Your task to perform on an android device: turn notification dots on Image 0: 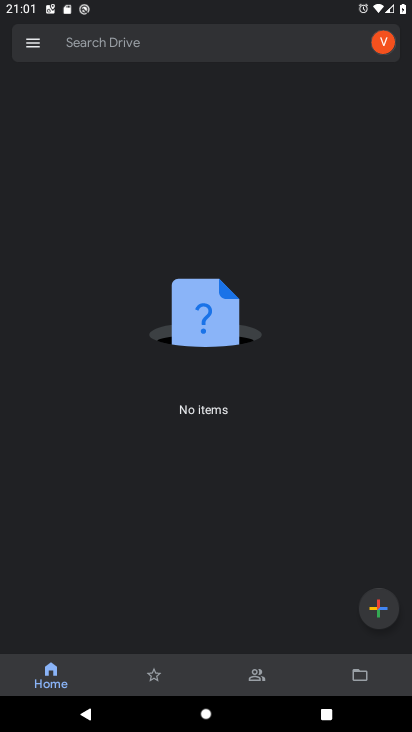
Step 0: press home button
Your task to perform on an android device: turn notification dots on Image 1: 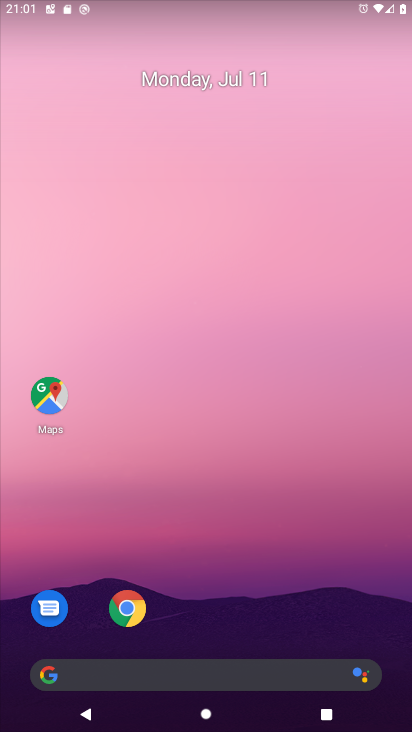
Step 1: drag from (258, 614) to (196, 21)
Your task to perform on an android device: turn notification dots on Image 2: 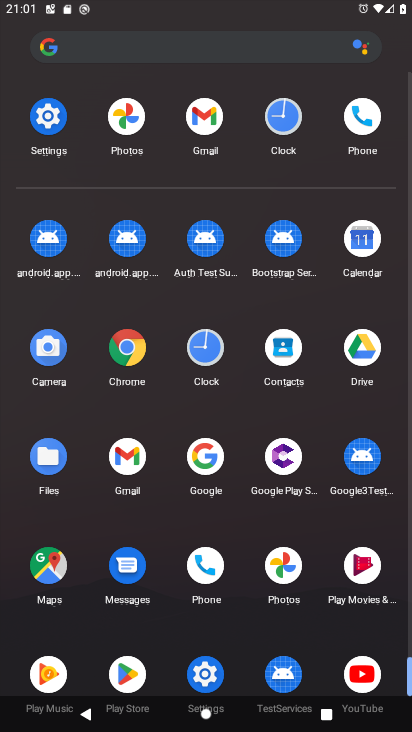
Step 2: click (44, 136)
Your task to perform on an android device: turn notification dots on Image 3: 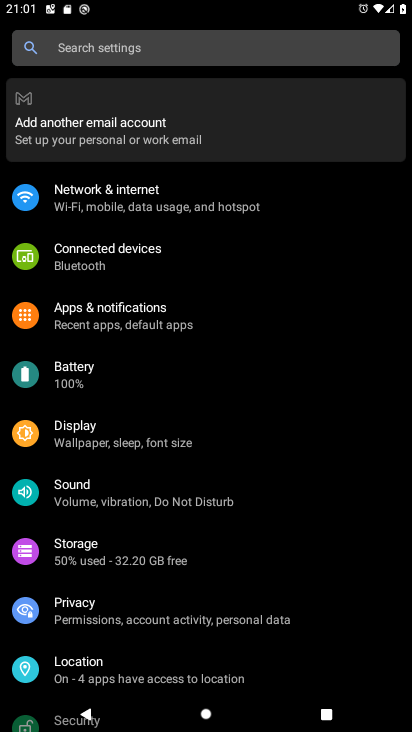
Step 3: click (117, 315)
Your task to perform on an android device: turn notification dots on Image 4: 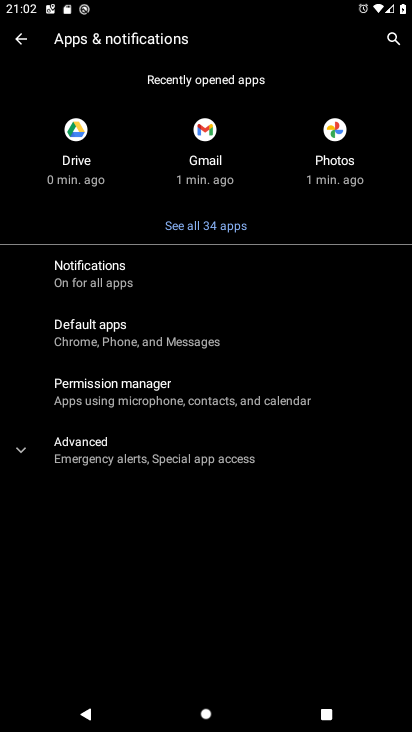
Step 4: click (111, 275)
Your task to perform on an android device: turn notification dots on Image 5: 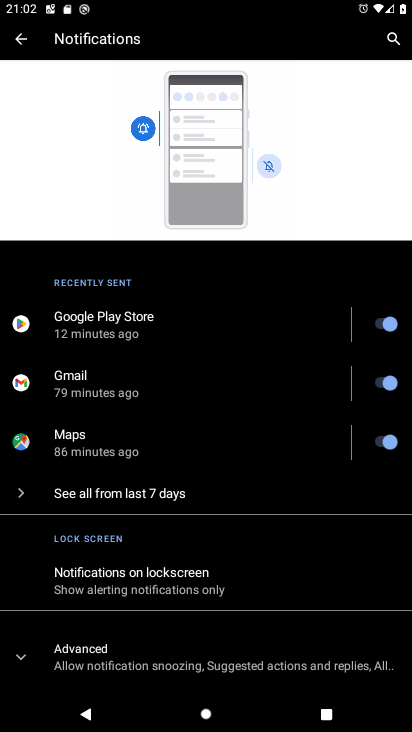
Step 5: click (136, 641)
Your task to perform on an android device: turn notification dots on Image 6: 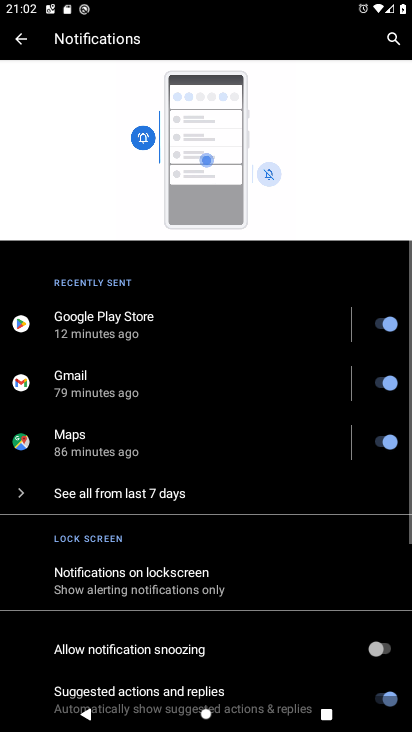
Step 6: task complete